Your task to perform on an android device: show emergency info Image 0: 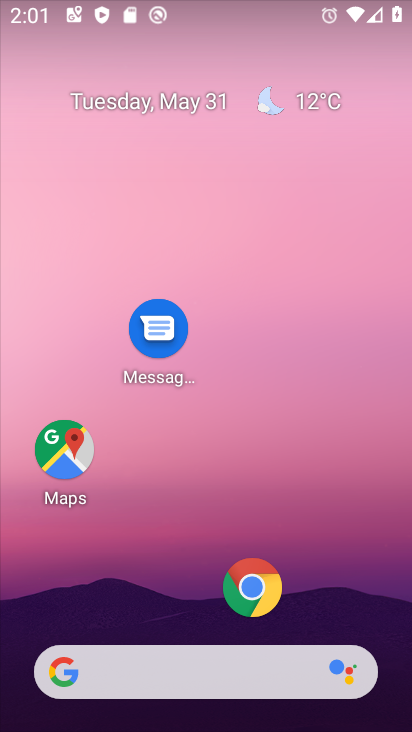
Step 0: drag from (191, 591) to (199, 323)
Your task to perform on an android device: show emergency info Image 1: 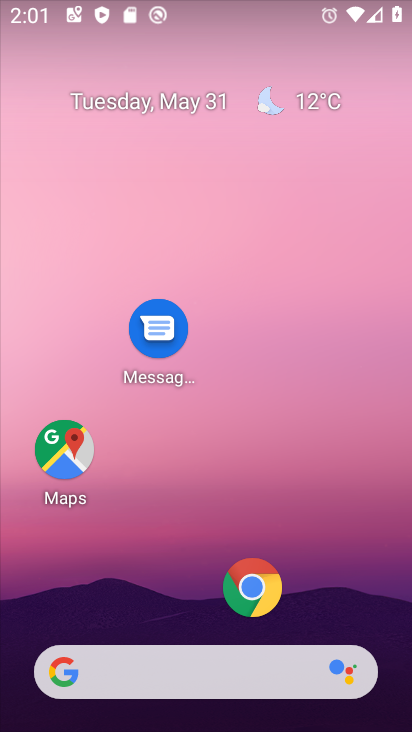
Step 1: drag from (201, 595) to (205, 339)
Your task to perform on an android device: show emergency info Image 2: 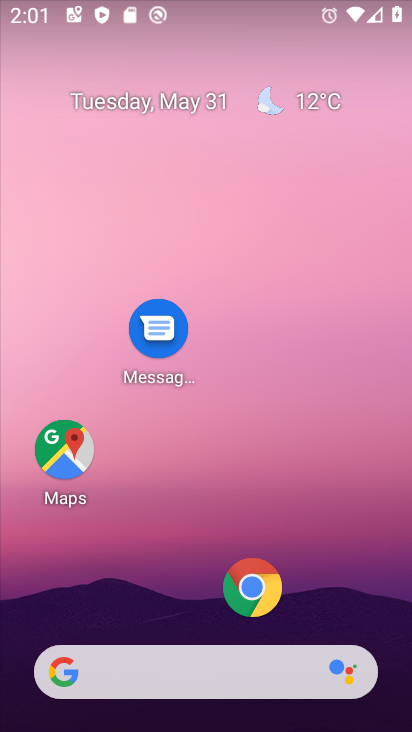
Step 2: drag from (230, 629) to (307, 38)
Your task to perform on an android device: show emergency info Image 3: 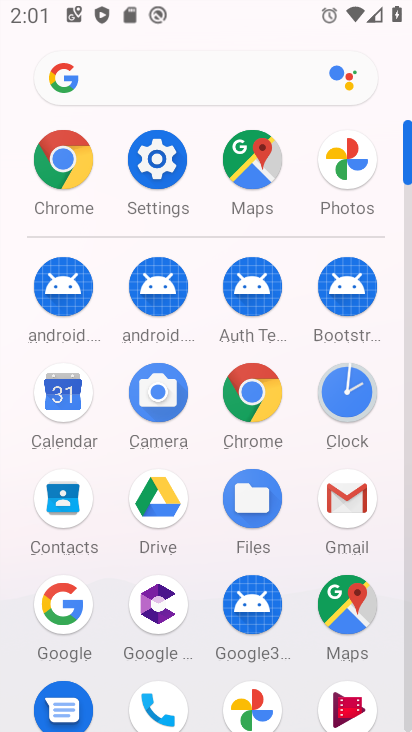
Step 3: click (149, 165)
Your task to perform on an android device: show emergency info Image 4: 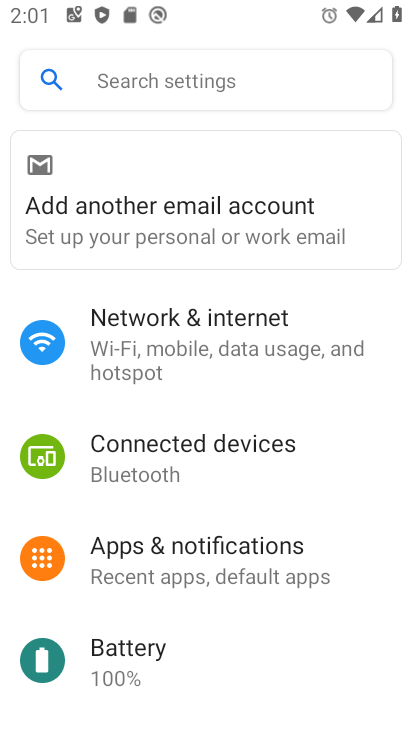
Step 4: drag from (232, 565) to (277, 65)
Your task to perform on an android device: show emergency info Image 5: 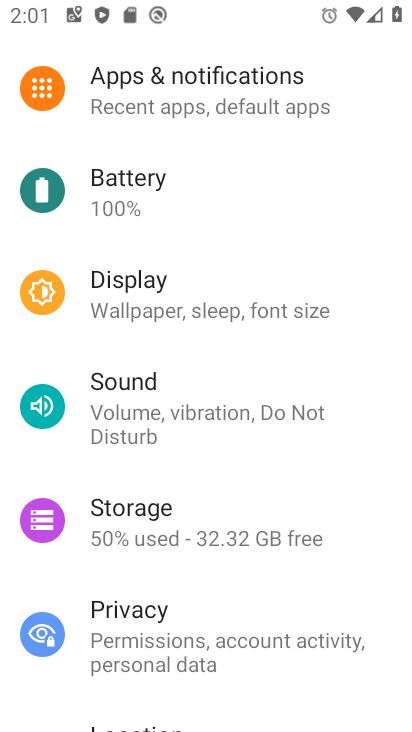
Step 5: drag from (190, 584) to (218, 191)
Your task to perform on an android device: show emergency info Image 6: 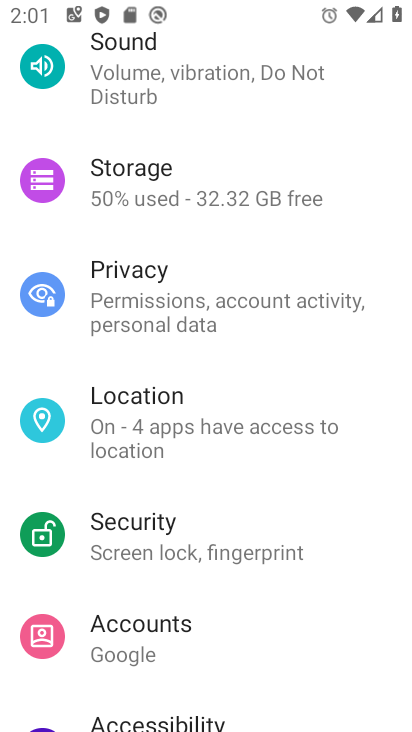
Step 6: drag from (204, 702) to (267, 108)
Your task to perform on an android device: show emergency info Image 7: 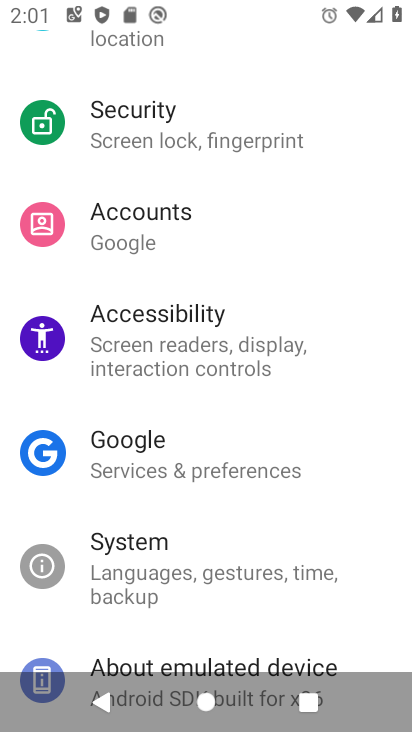
Step 7: drag from (162, 613) to (187, 382)
Your task to perform on an android device: show emergency info Image 8: 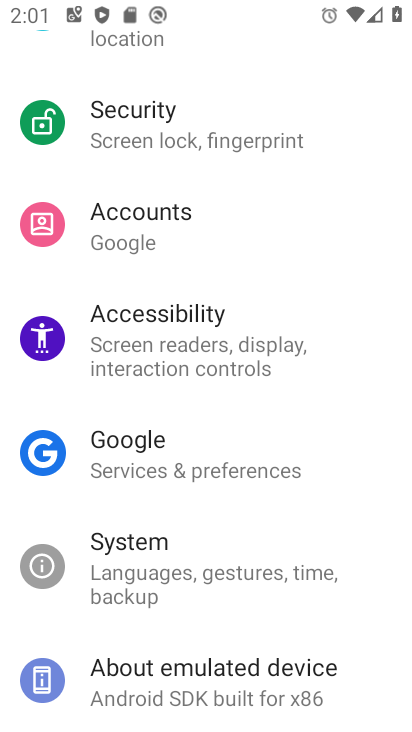
Step 8: click (194, 668)
Your task to perform on an android device: show emergency info Image 9: 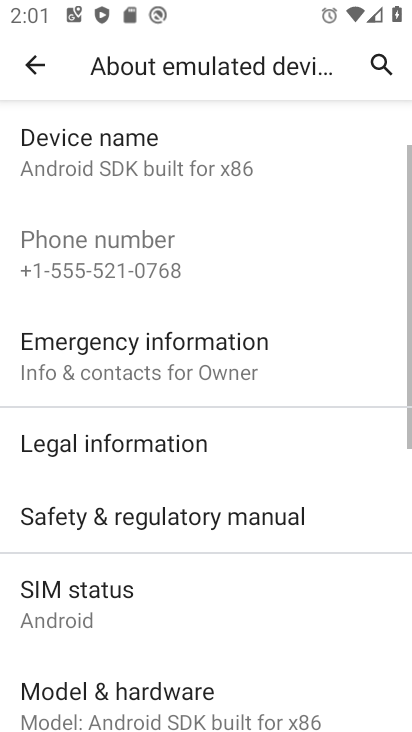
Step 9: click (186, 358)
Your task to perform on an android device: show emergency info Image 10: 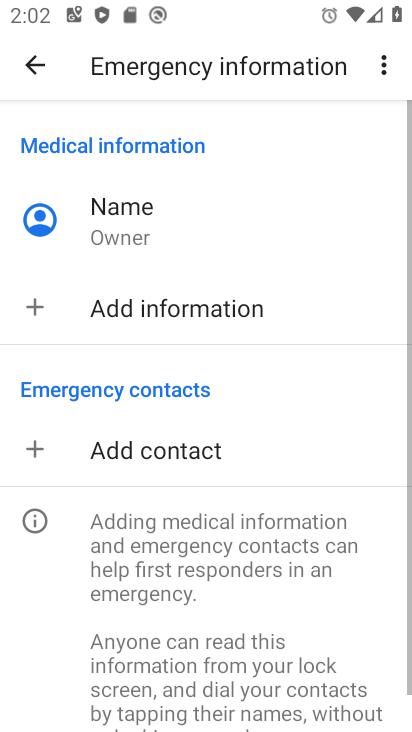
Step 10: task complete